Your task to perform on an android device: turn on translation in the chrome app Image 0: 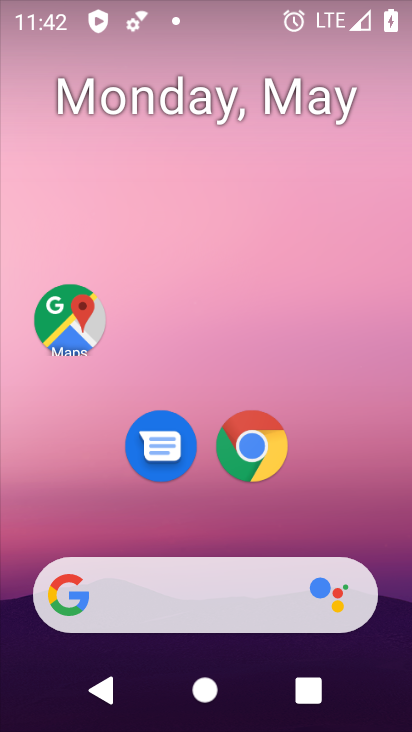
Step 0: click (256, 434)
Your task to perform on an android device: turn on translation in the chrome app Image 1: 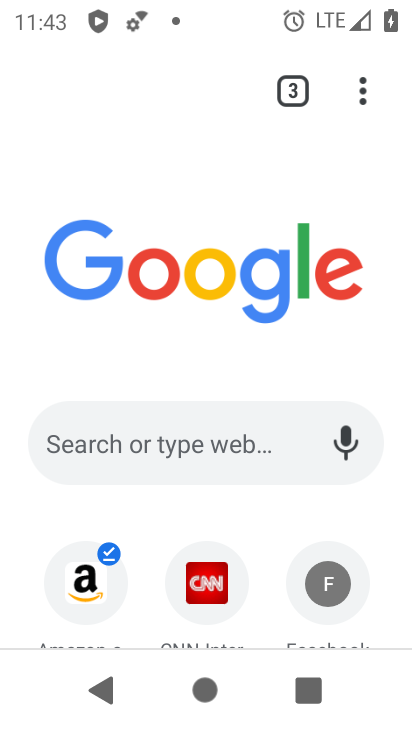
Step 1: click (367, 88)
Your task to perform on an android device: turn on translation in the chrome app Image 2: 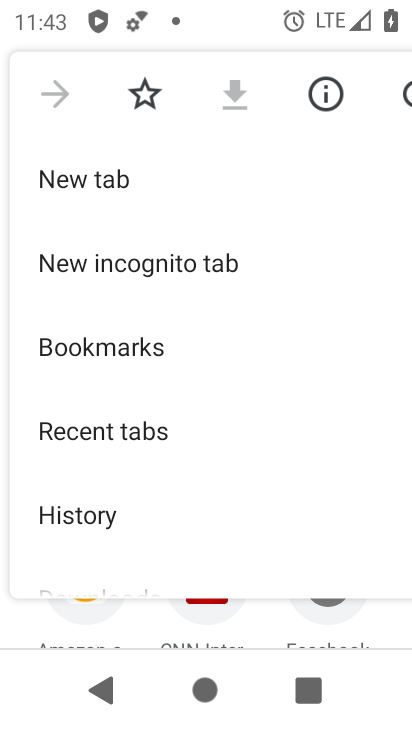
Step 2: drag from (249, 388) to (182, 65)
Your task to perform on an android device: turn on translation in the chrome app Image 3: 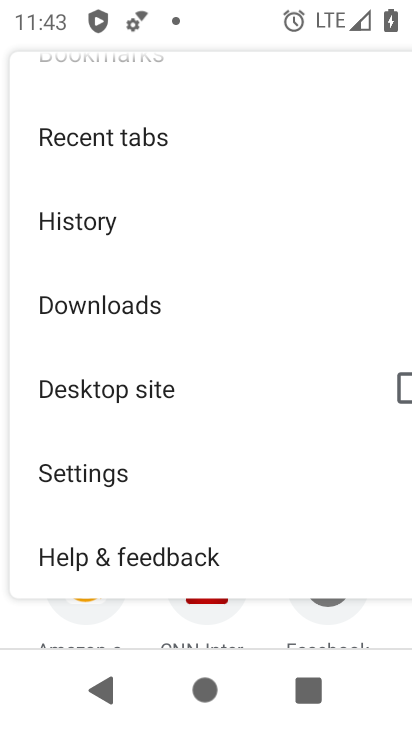
Step 3: click (120, 480)
Your task to perform on an android device: turn on translation in the chrome app Image 4: 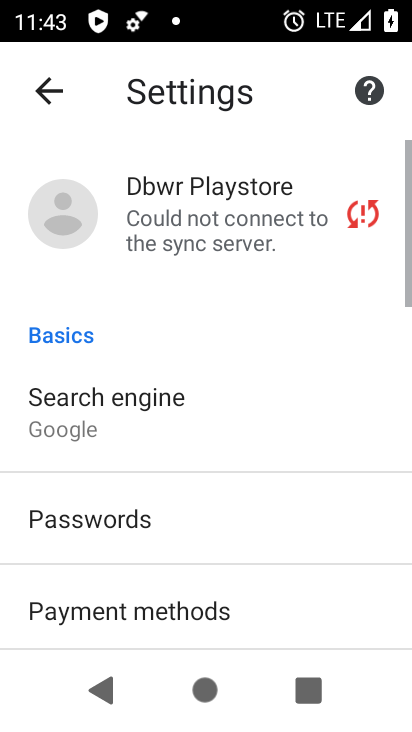
Step 4: drag from (238, 484) to (196, 70)
Your task to perform on an android device: turn on translation in the chrome app Image 5: 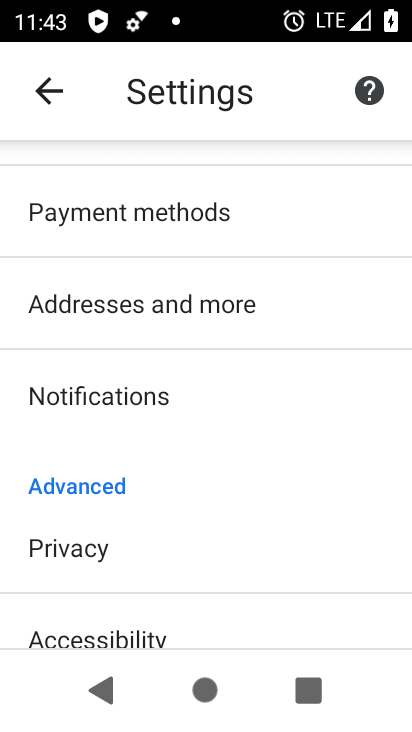
Step 5: drag from (287, 581) to (242, 243)
Your task to perform on an android device: turn on translation in the chrome app Image 6: 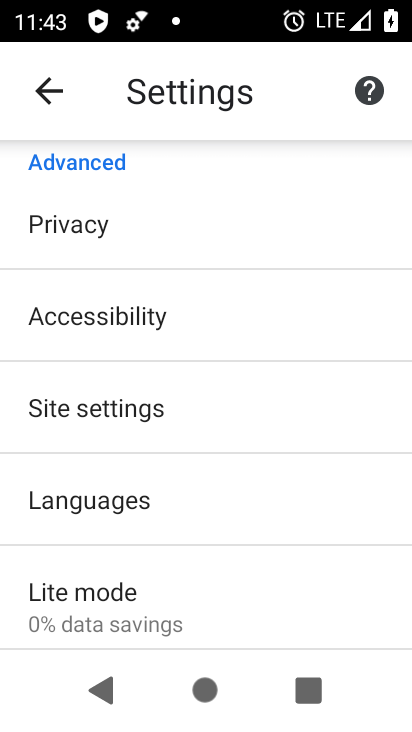
Step 6: click (96, 501)
Your task to perform on an android device: turn on translation in the chrome app Image 7: 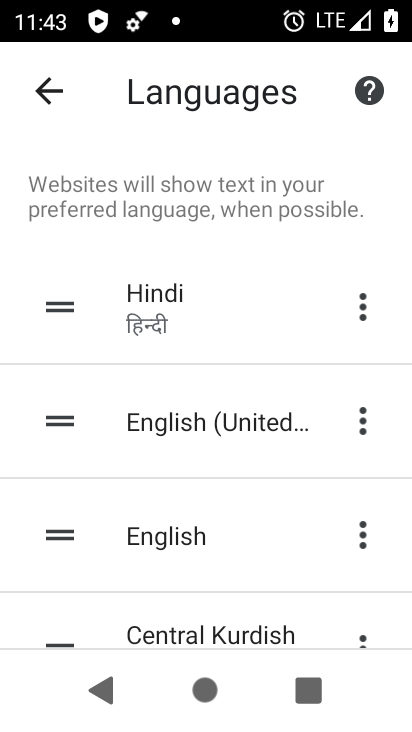
Step 7: drag from (338, 572) to (292, 176)
Your task to perform on an android device: turn on translation in the chrome app Image 8: 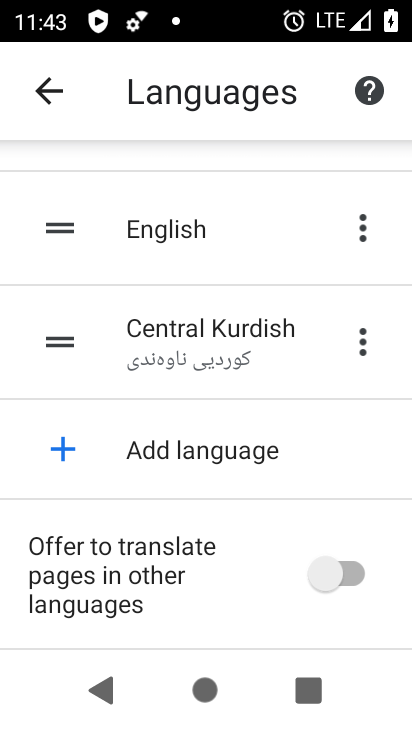
Step 8: click (320, 558)
Your task to perform on an android device: turn on translation in the chrome app Image 9: 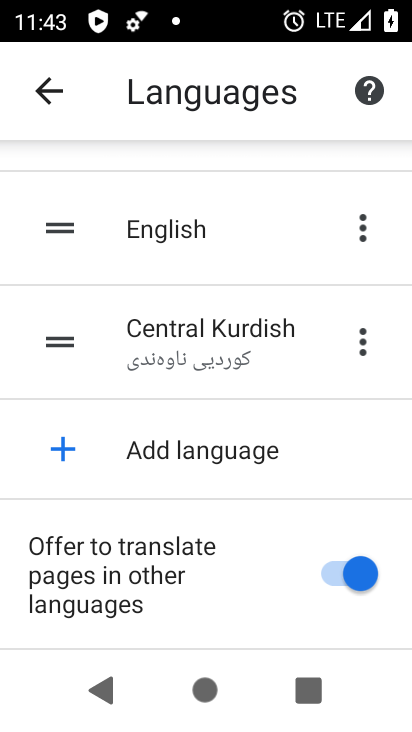
Step 9: task complete